Your task to perform on an android device: turn off translation in the chrome app Image 0: 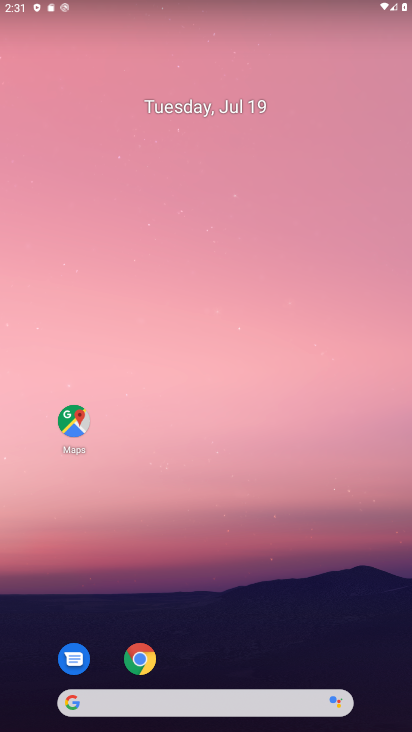
Step 0: click (139, 658)
Your task to perform on an android device: turn off translation in the chrome app Image 1: 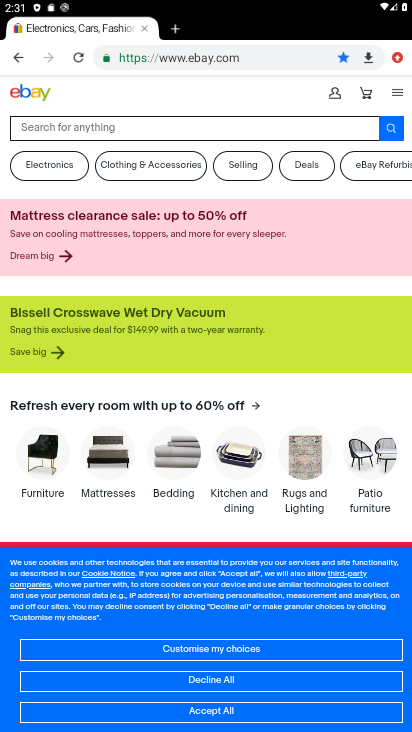
Step 1: click (398, 58)
Your task to perform on an android device: turn off translation in the chrome app Image 2: 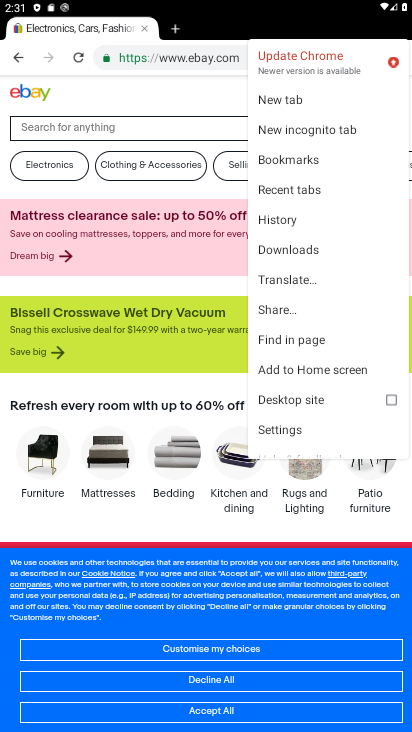
Step 2: click (281, 429)
Your task to perform on an android device: turn off translation in the chrome app Image 3: 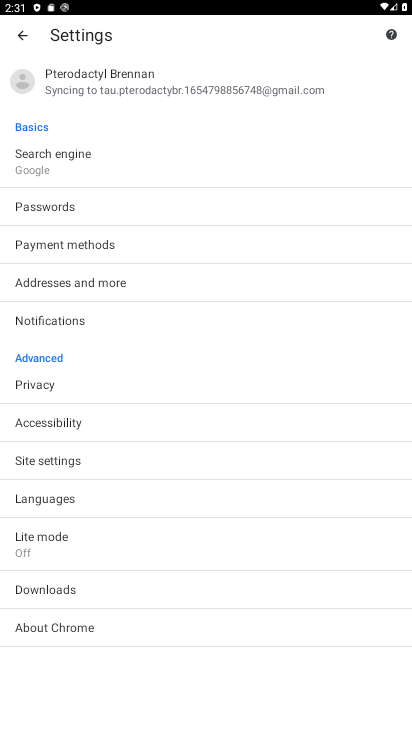
Step 3: click (60, 497)
Your task to perform on an android device: turn off translation in the chrome app Image 4: 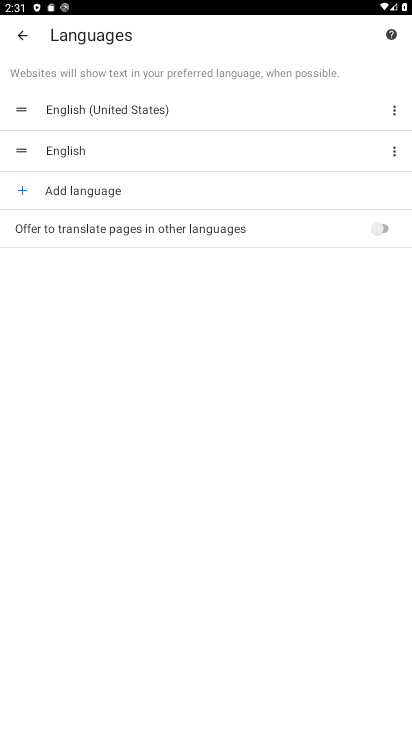
Step 4: task complete